Your task to perform on an android device: turn on showing notifications on the lock screen Image 0: 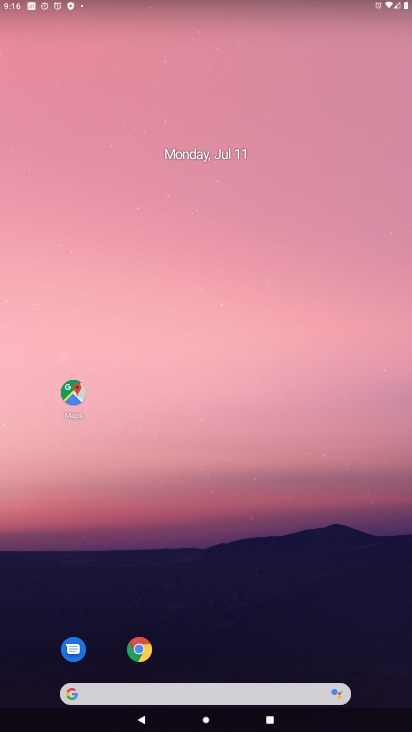
Step 0: drag from (211, 690) to (270, 281)
Your task to perform on an android device: turn on showing notifications on the lock screen Image 1: 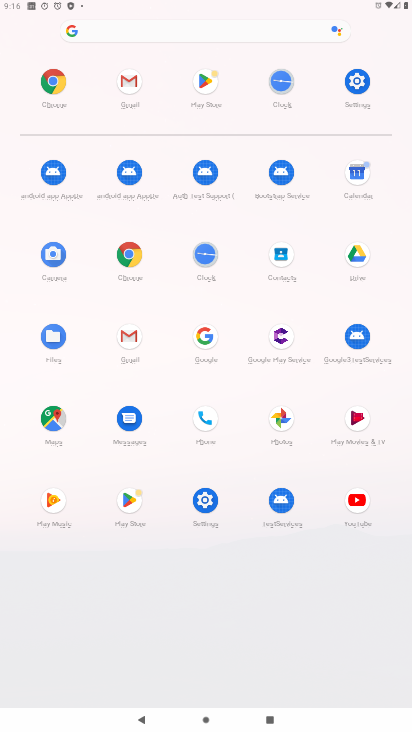
Step 1: click (358, 80)
Your task to perform on an android device: turn on showing notifications on the lock screen Image 2: 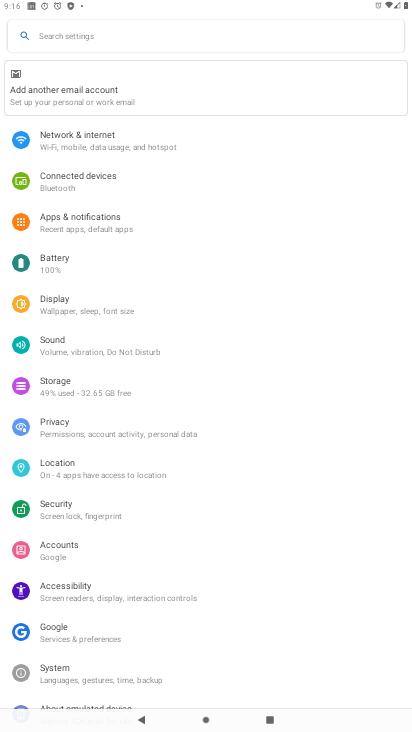
Step 2: click (113, 222)
Your task to perform on an android device: turn on showing notifications on the lock screen Image 3: 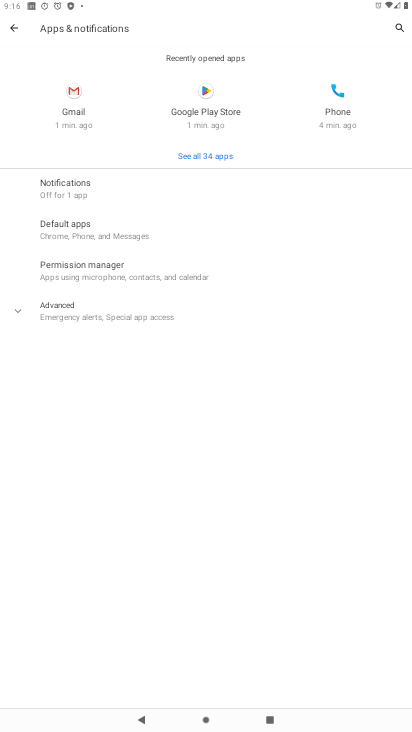
Step 3: click (67, 193)
Your task to perform on an android device: turn on showing notifications on the lock screen Image 4: 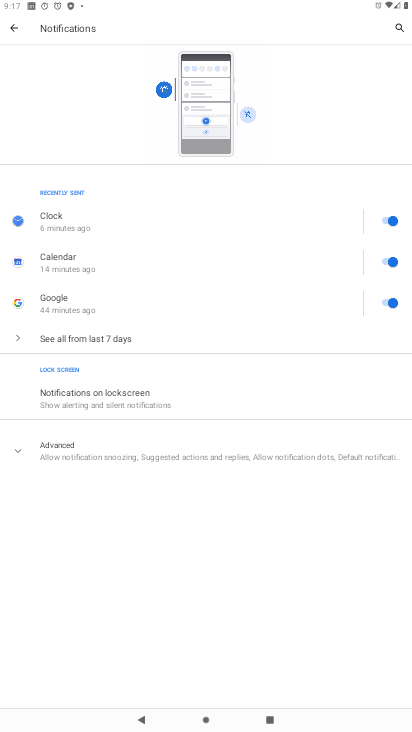
Step 4: click (117, 398)
Your task to perform on an android device: turn on showing notifications on the lock screen Image 5: 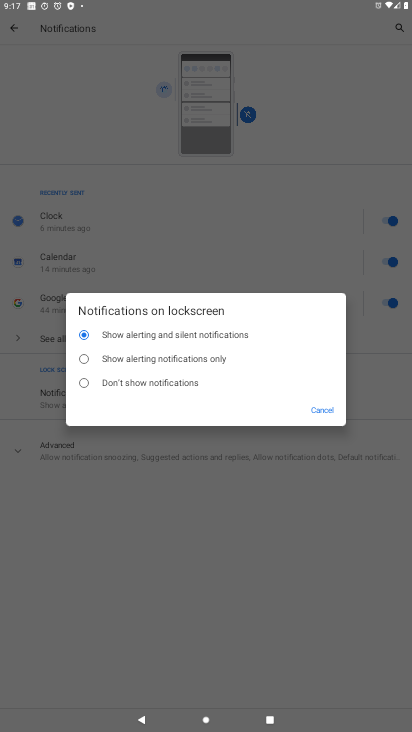
Step 5: click (189, 331)
Your task to perform on an android device: turn on showing notifications on the lock screen Image 6: 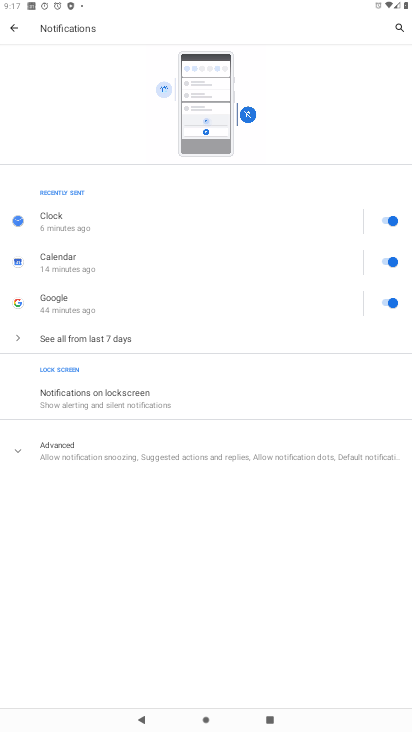
Step 6: task complete